Your task to perform on an android device: turn on data saver in the chrome app Image 0: 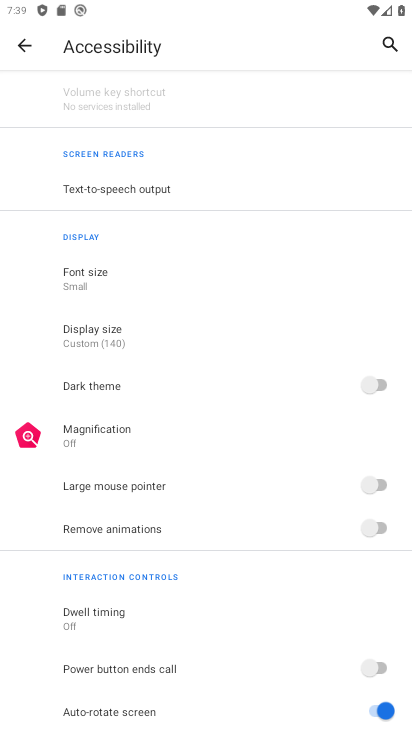
Step 0: press home button
Your task to perform on an android device: turn on data saver in the chrome app Image 1: 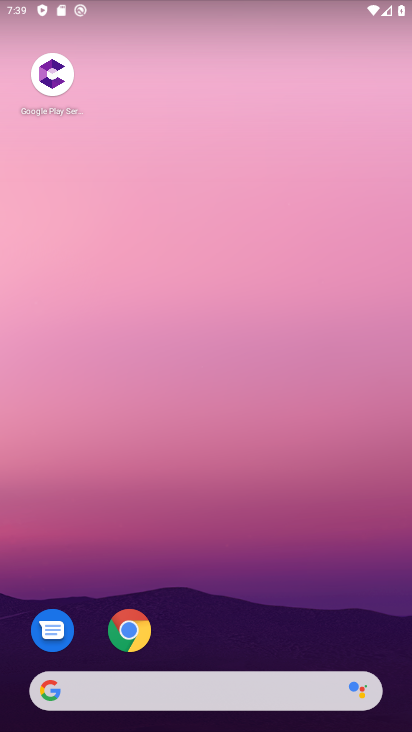
Step 1: click (118, 634)
Your task to perform on an android device: turn on data saver in the chrome app Image 2: 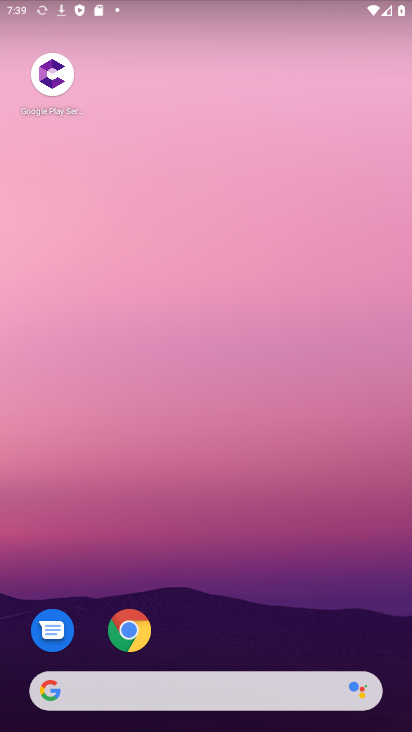
Step 2: click (118, 634)
Your task to perform on an android device: turn on data saver in the chrome app Image 3: 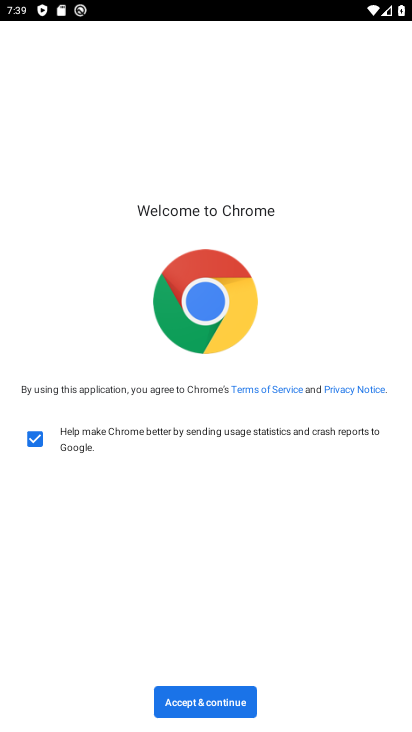
Step 3: click (209, 708)
Your task to perform on an android device: turn on data saver in the chrome app Image 4: 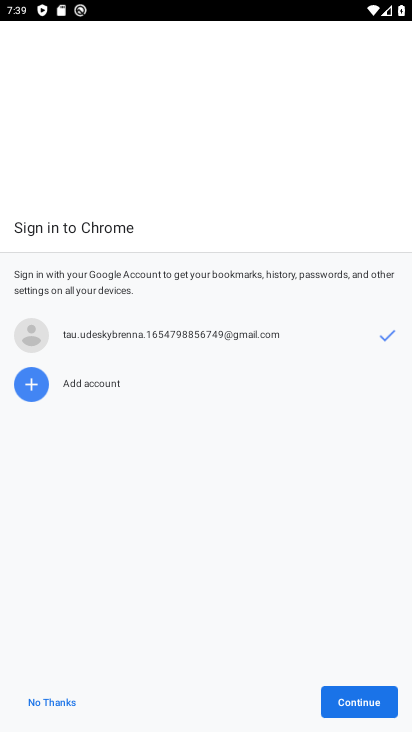
Step 4: click (344, 703)
Your task to perform on an android device: turn on data saver in the chrome app Image 5: 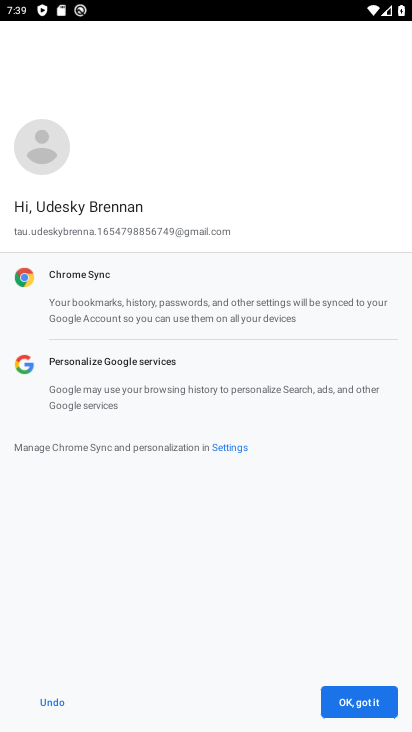
Step 5: click (344, 703)
Your task to perform on an android device: turn on data saver in the chrome app Image 6: 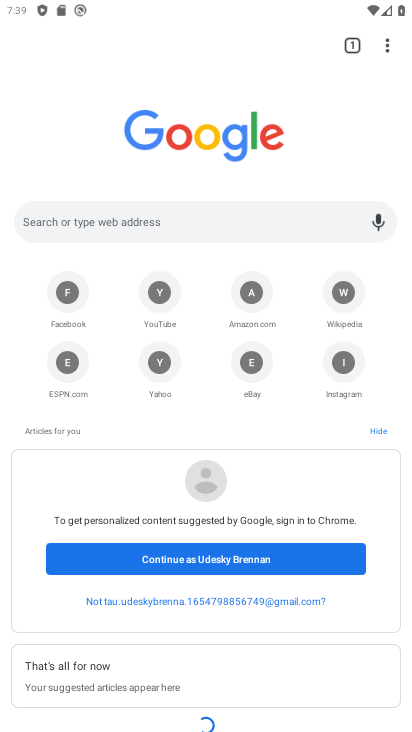
Step 6: click (385, 46)
Your task to perform on an android device: turn on data saver in the chrome app Image 7: 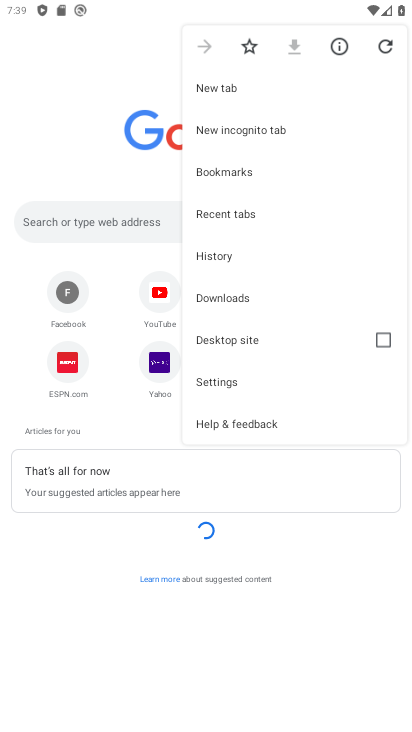
Step 7: click (227, 389)
Your task to perform on an android device: turn on data saver in the chrome app Image 8: 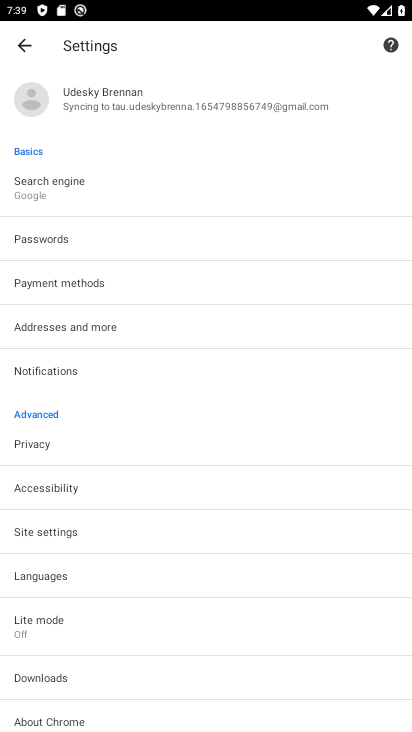
Step 8: click (61, 630)
Your task to perform on an android device: turn on data saver in the chrome app Image 9: 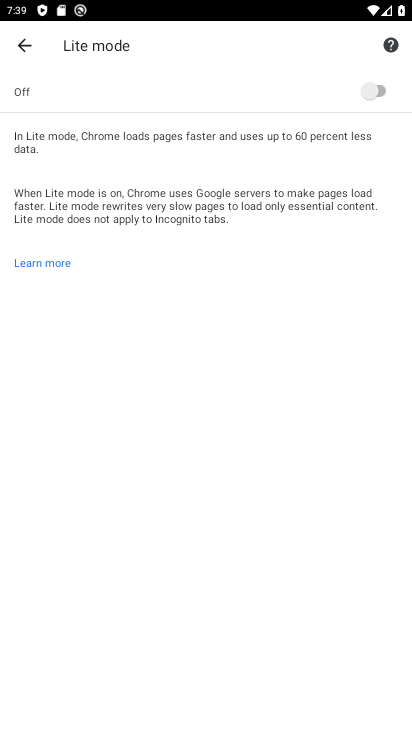
Step 9: click (379, 89)
Your task to perform on an android device: turn on data saver in the chrome app Image 10: 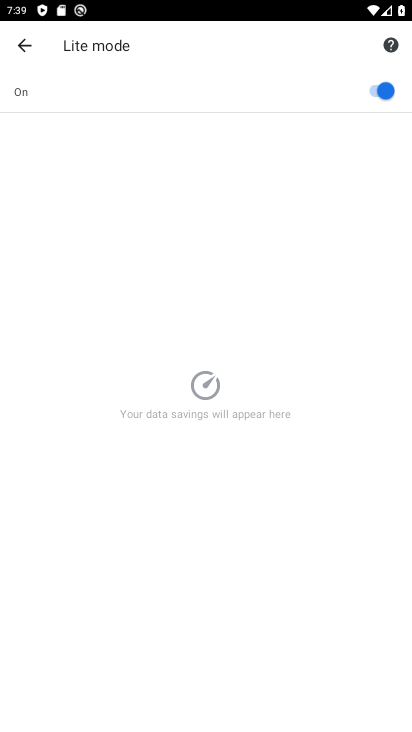
Step 10: task complete